Your task to perform on an android device: Search for Mexican restaurants on Maps Image 0: 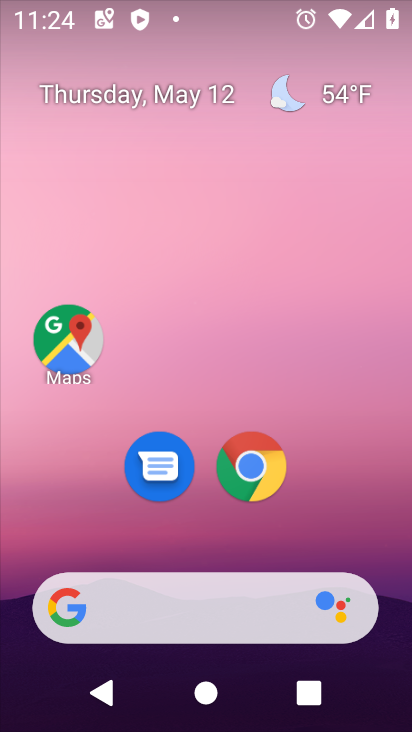
Step 0: drag from (336, 511) to (356, 90)
Your task to perform on an android device: Search for Mexican restaurants on Maps Image 1: 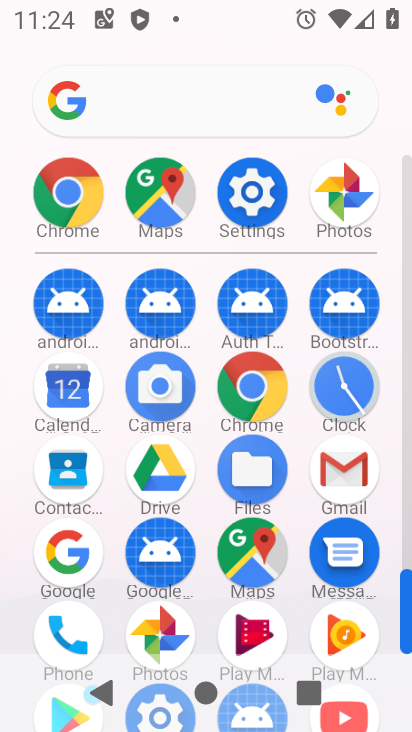
Step 1: click (262, 554)
Your task to perform on an android device: Search for Mexican restaurants on Maps Image 2: 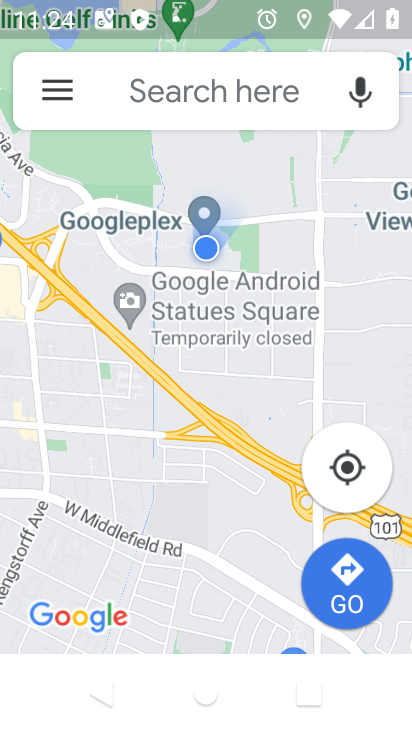
Step 2: click (295, 100)
Your task to perform on an android device: Search for Mexican restaurants on Maps Image 3: 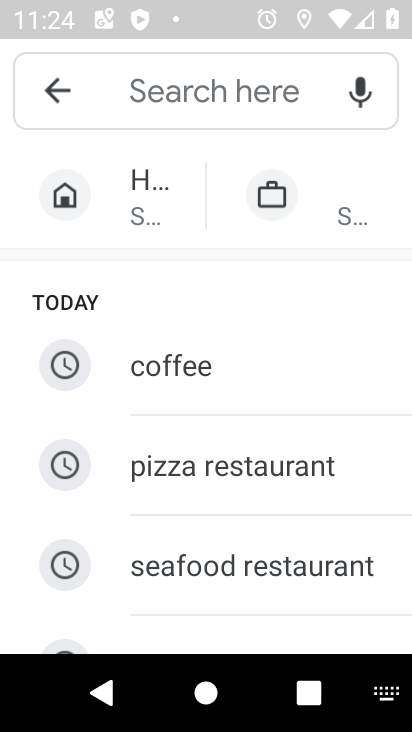
Step 3: type "mexican restaurants "
Your task to perform on an android device: Search for Mexican restaurants on Maps Image 4: 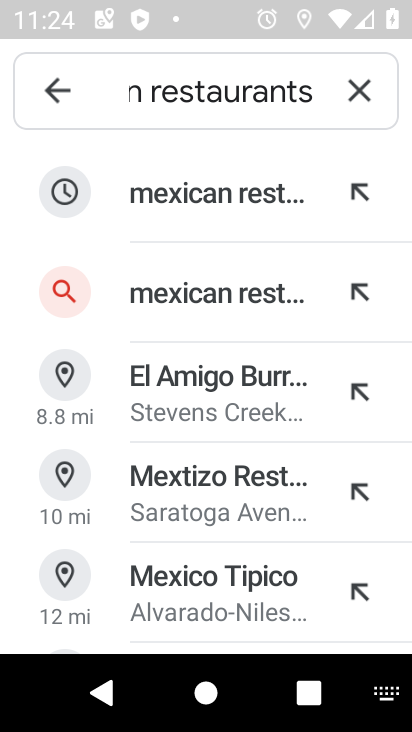
Step 4: click (224, 207)
Your task to perform on an android device: Search for Mexican restaurants on Maps Image 5: 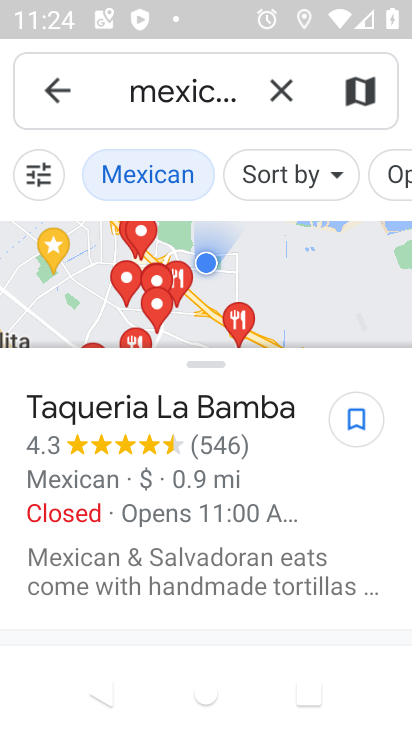
Step 5: task complete